Your task to perform on an android device: What's on my calendar today? Image 0: 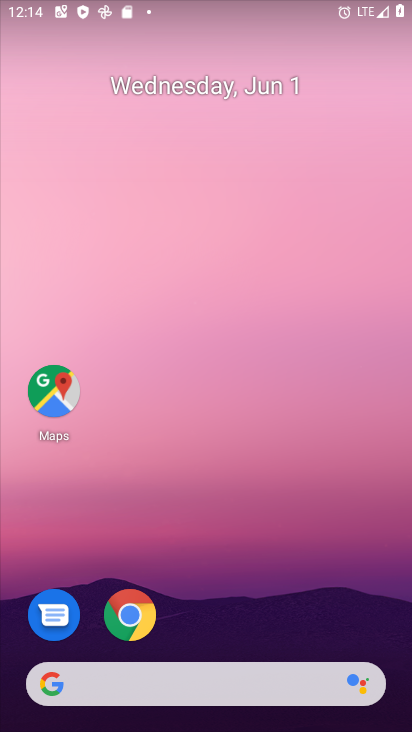
Step 0: drag from (369, 600) to (265, 2)
Your task to perform on an android device: What's on my calendar today? Image 1: 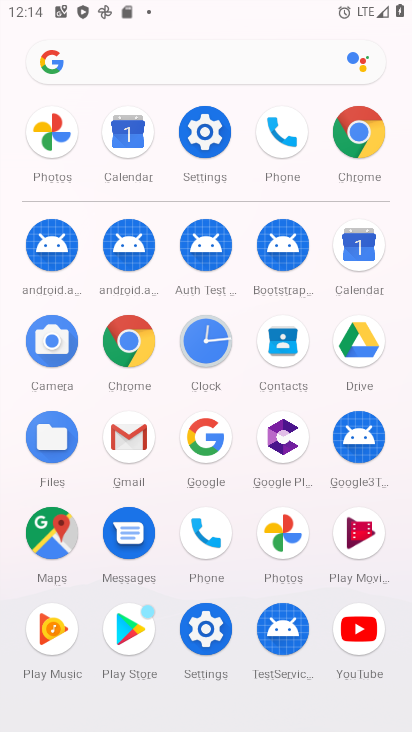
Step 1: click (370, 302)
Your task to perform on an android device: What's on my calendar today? Image 2: 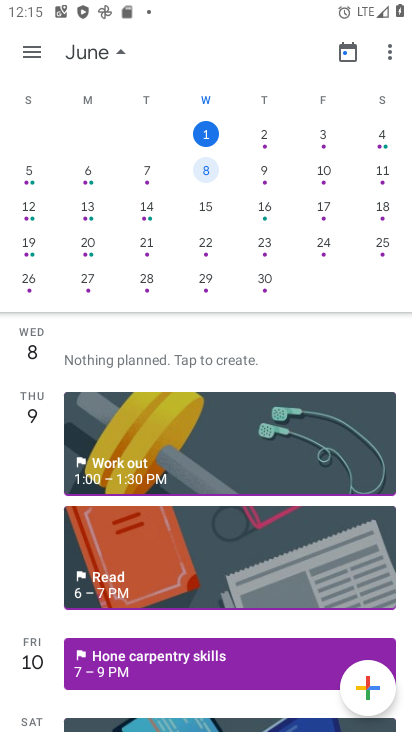
Step 2: task complete